Your task to perform on an android device: Go to Reddit.com Image 0: 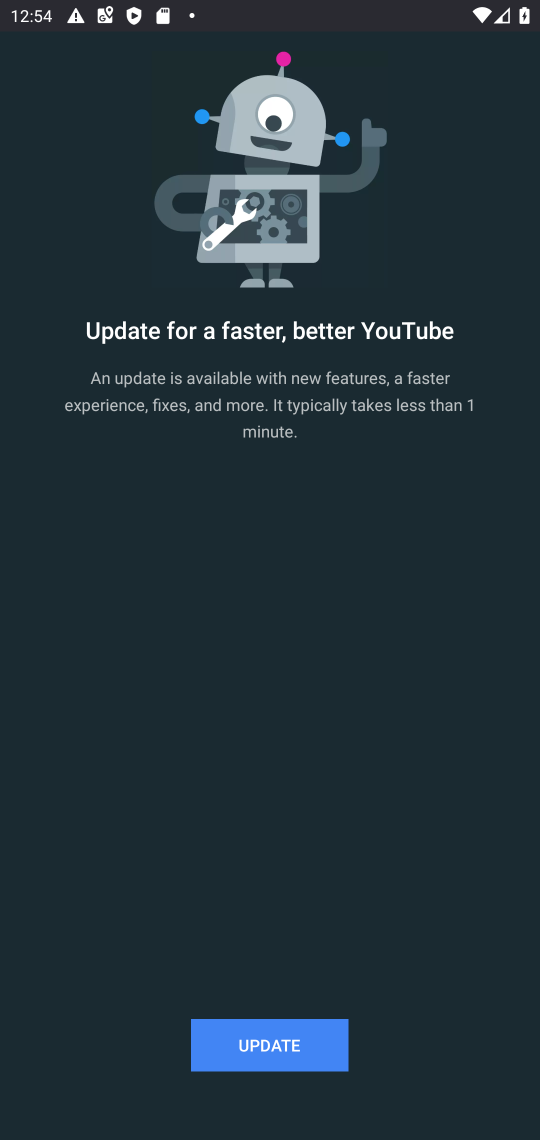
Step 0: press home button
Your task to perform on an android device: Go to Reddit.com Image 1: 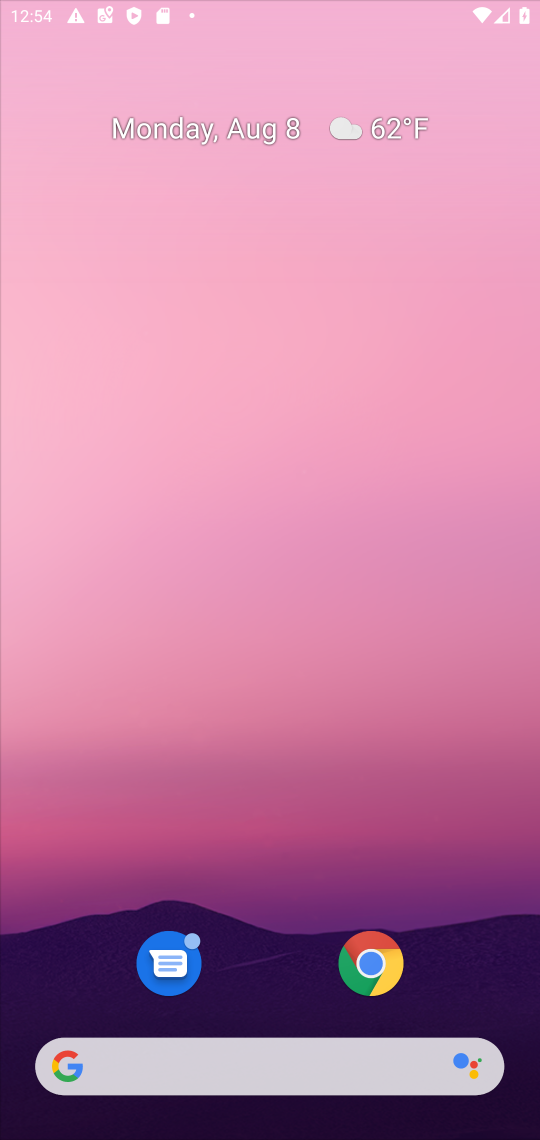
Step 1: drag from (472, 759) to (215, 70)
Your task to perform on an android device: Go to Reddit.com Image 2: 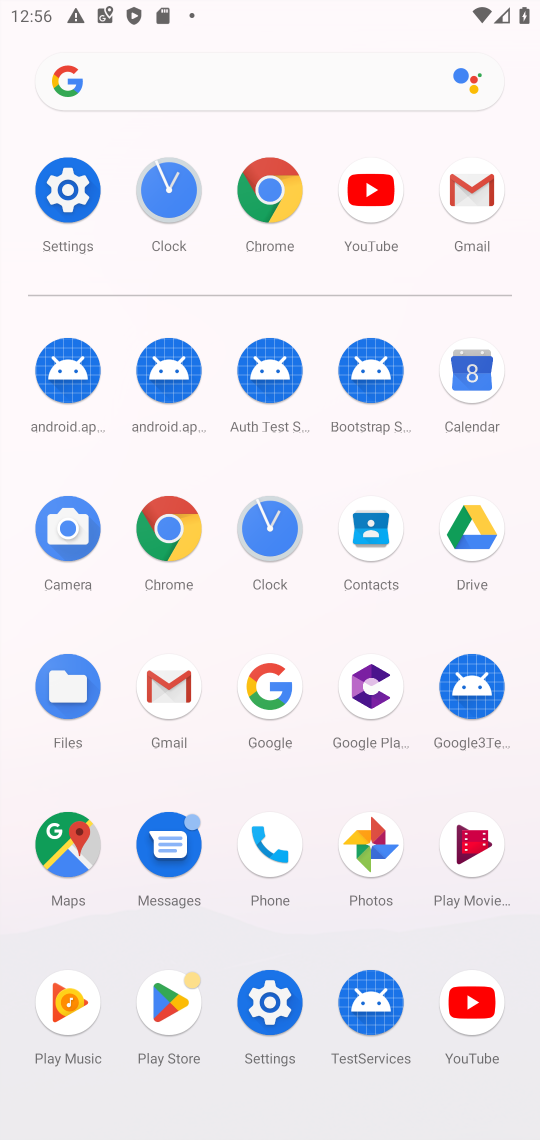
Step 2: click (252, 678)
Your task to perform on an android device: Go to Reddit.com Image 3: 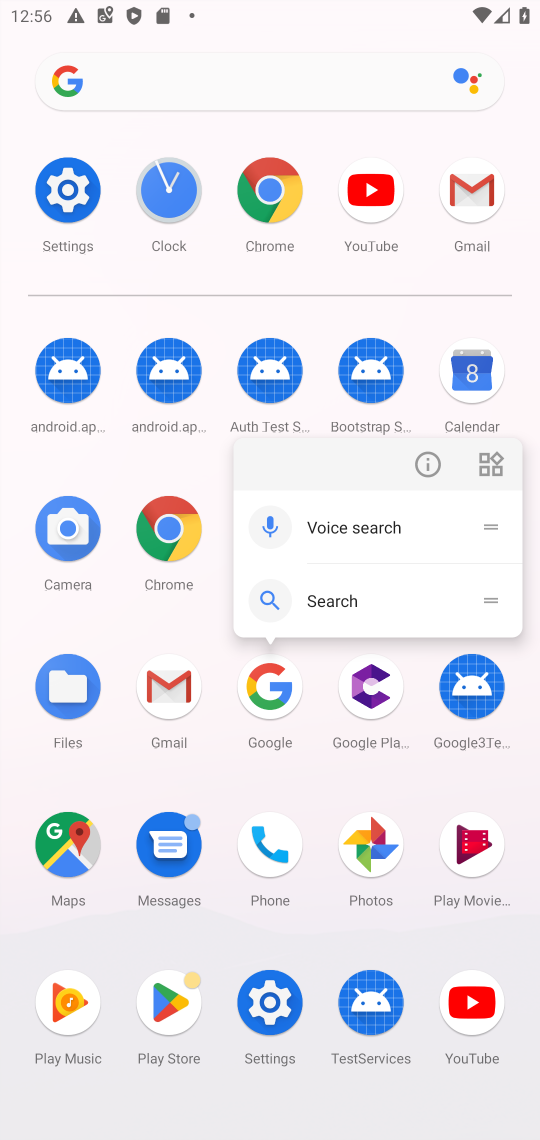
Step 3: click (278, 680)
Your task to perform on an android device: Go to Reddit.com Image 4: 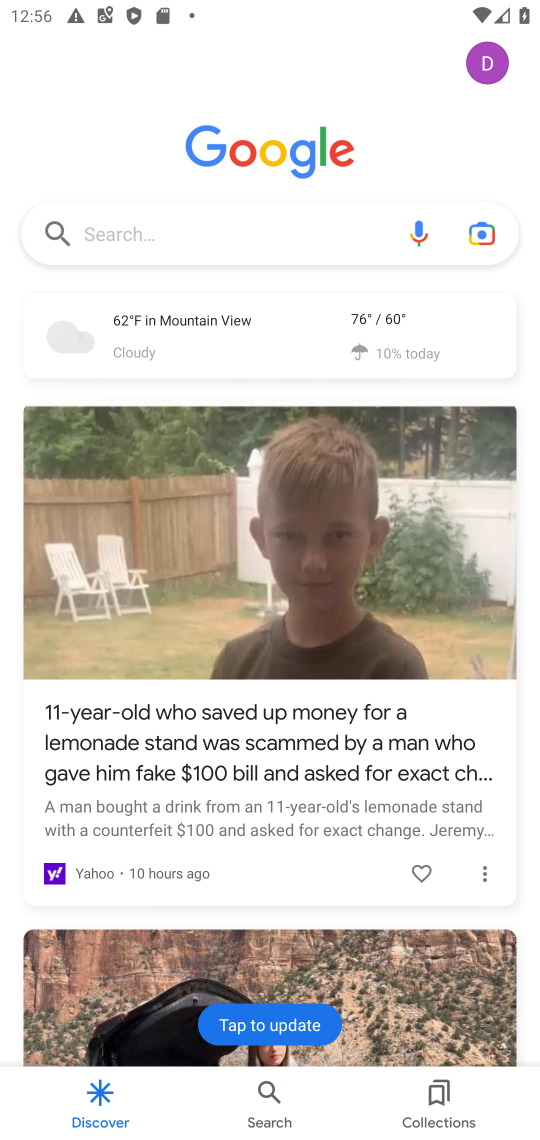
Step 4: click (292, 228)
Your task to perform on an android device: Go to Reddit.com Image 5: 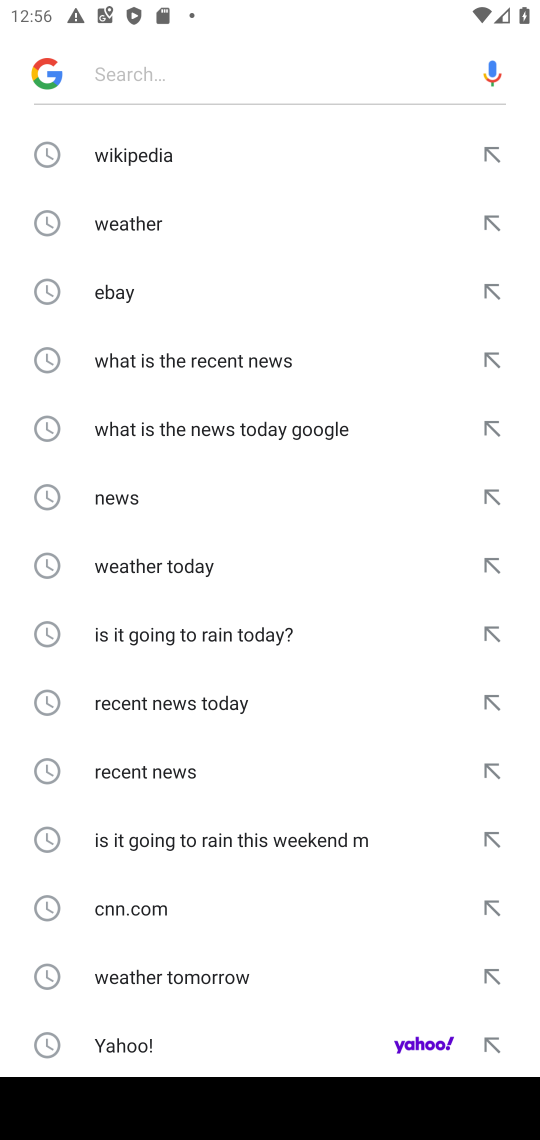
Step 5: type " Reddit.com"
Your task to perform on an android device: Go to Reddit.com Image 6: 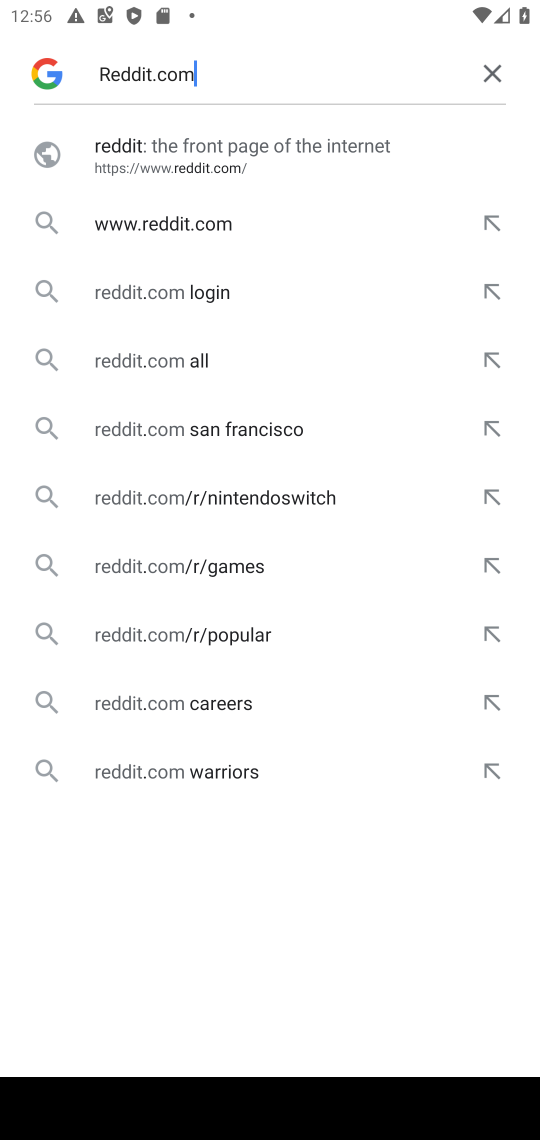
Step 6: click (164, 165)
Your task to perform on an android device: Go to Reddit.com Image 7: 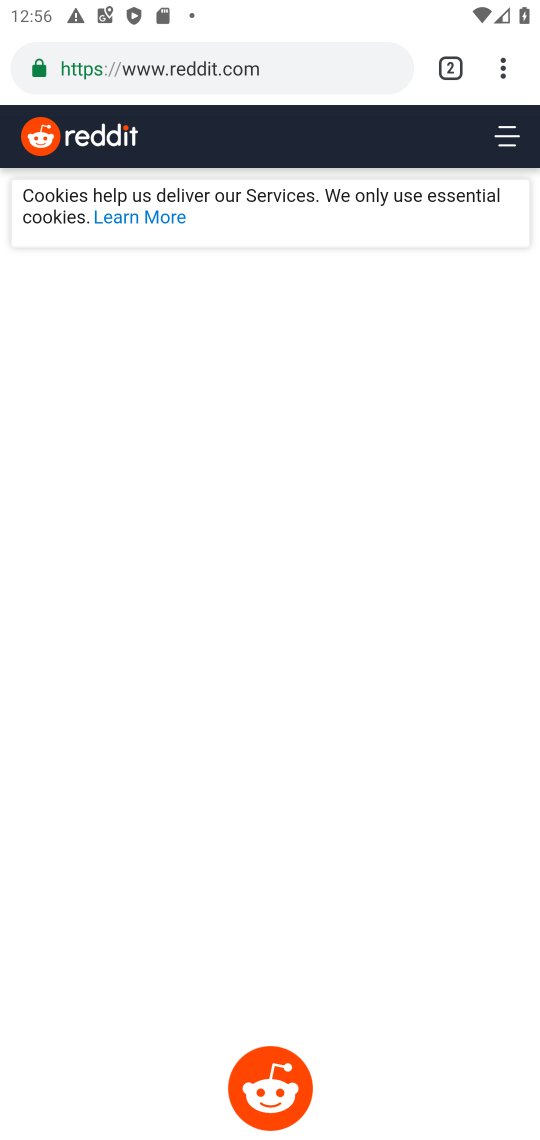
Step 7: task complete